Your task to perform on an android device: See recent photos Image 0: 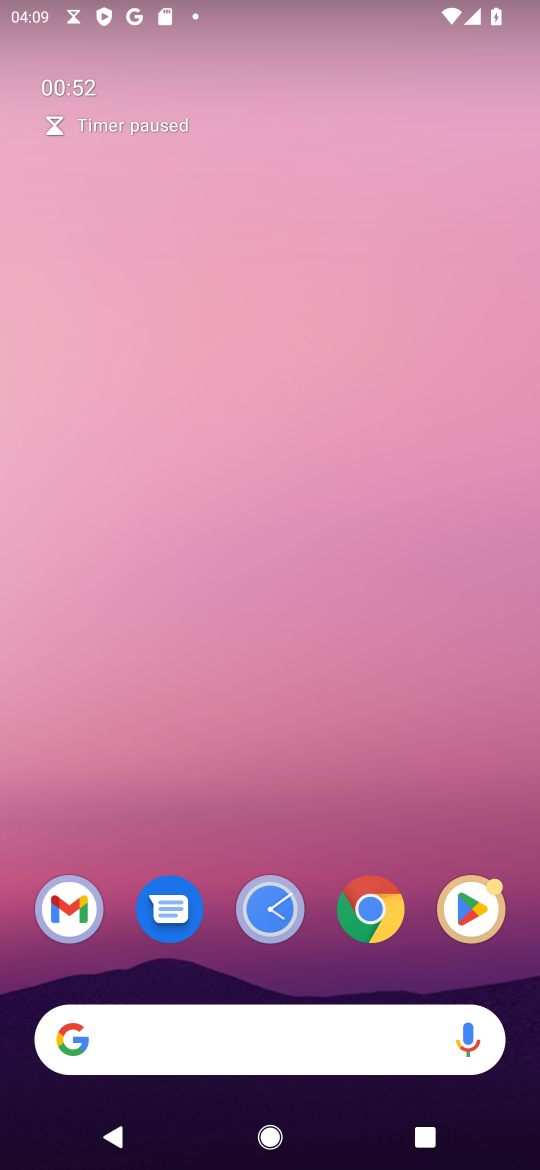
Step 0: drag from (264, 1002) to (404, 133)
Your task to perform on an android device: See recent photos Image 1: 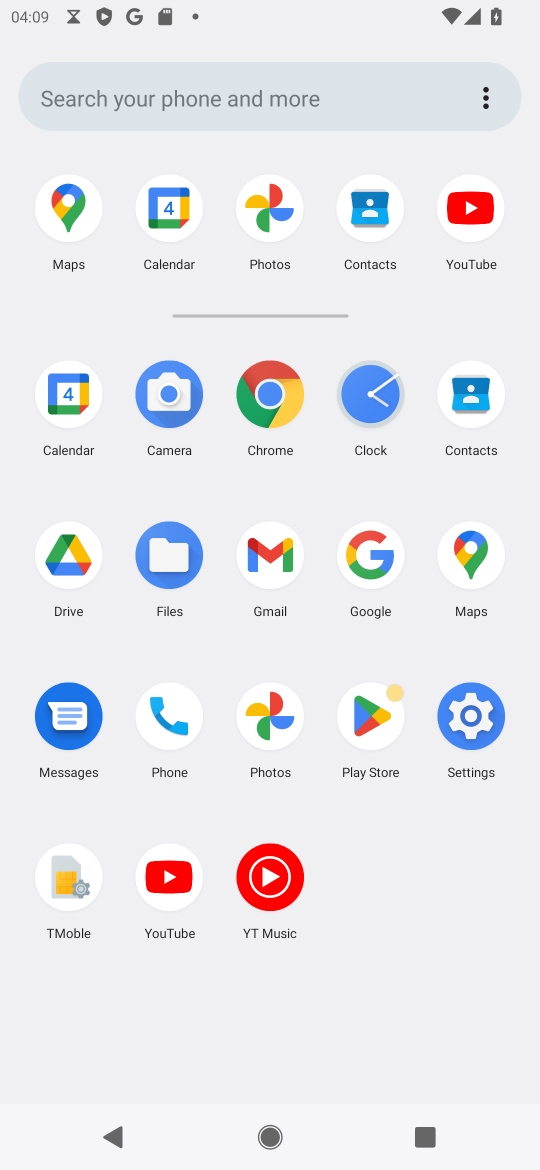
Step 1: click (273, 714)
Your task to perform on an android device: See recent photos Image 2: 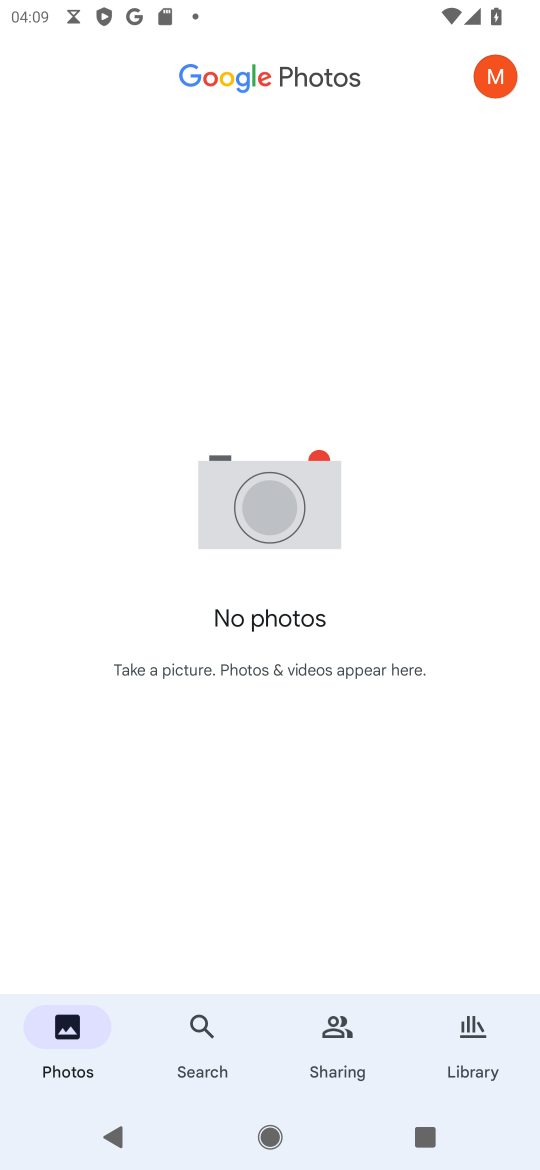
Step 2: click (440, 1070)
Your task to perform on an android device: See recent photos Image 3: 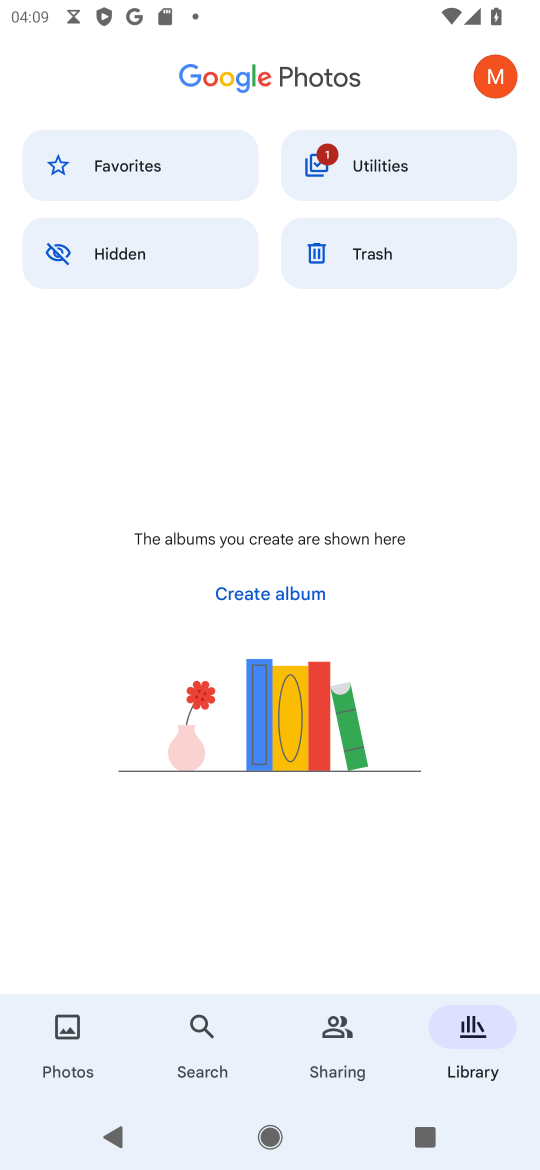
Step 3: click (219, 1081)
Your task to perform on an android device: See recent photos Image 4: 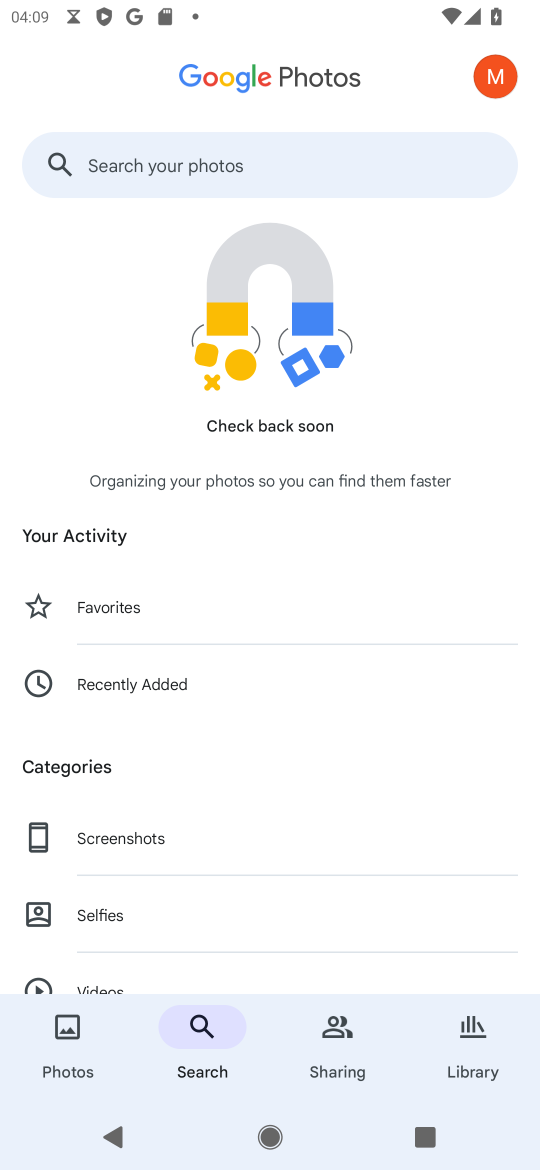
Step 4: click (173, 691)
Your task to perform on an android device: See recent photos Image 5: 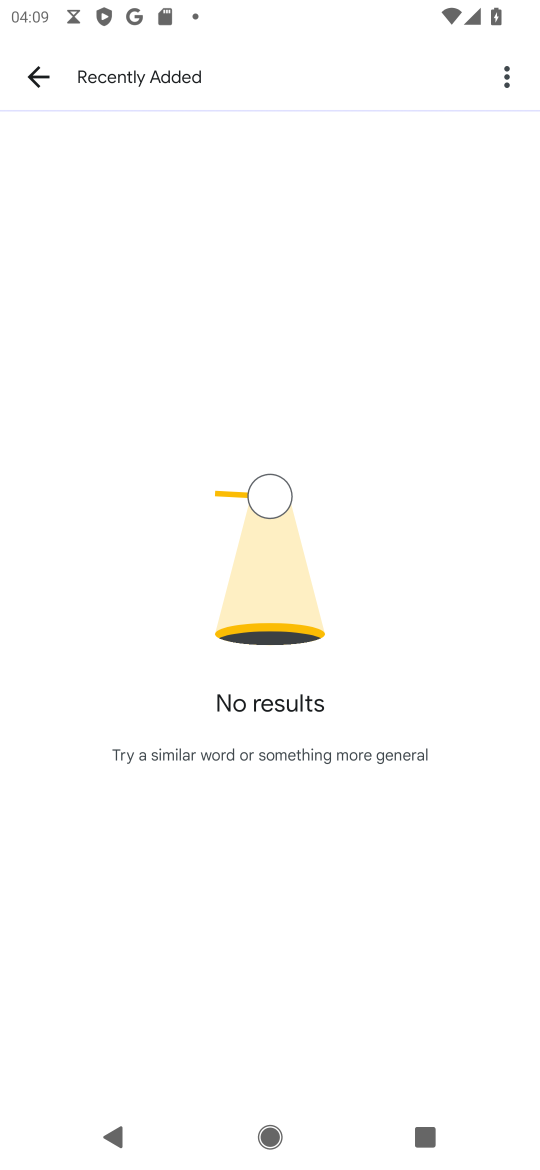
Step 5: task complete